Your task to perform on an android device: Open my contact list Image 0: 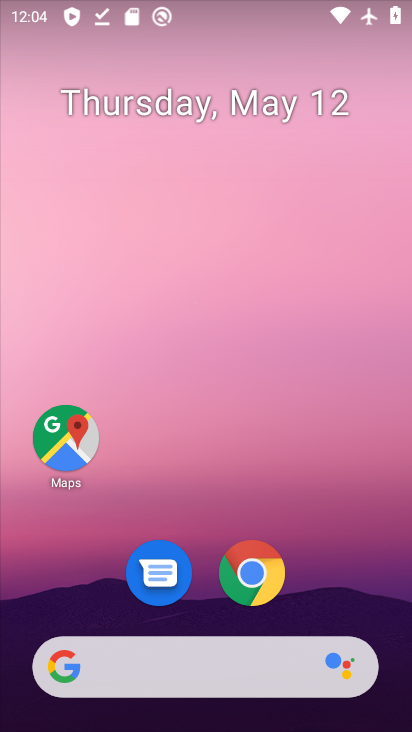
Step 0: drag from (313, 602) to (342, 256)
Your task to perform on an android device: Open my contact list Image 1: 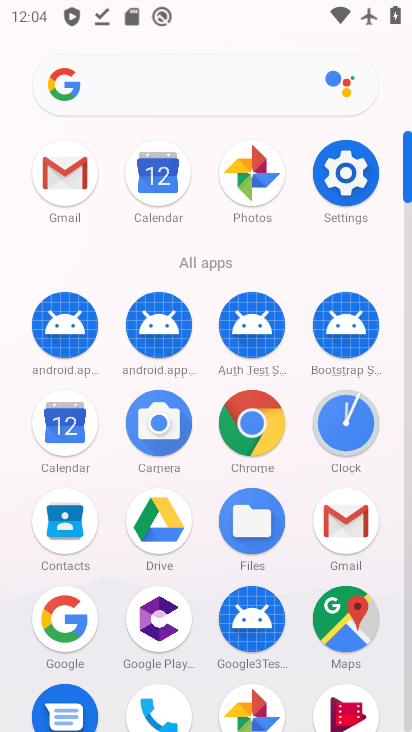
Step 1: drag from (212, 661) to (231, 353)
Your task to perform on an android device: Open my contact list Image 2: 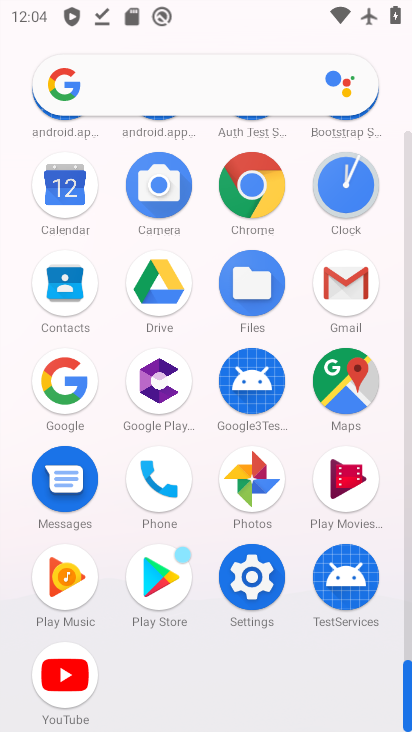
Step 2: click (168, 480)
Your task to perform on an android device: Open my contact list Image 3: 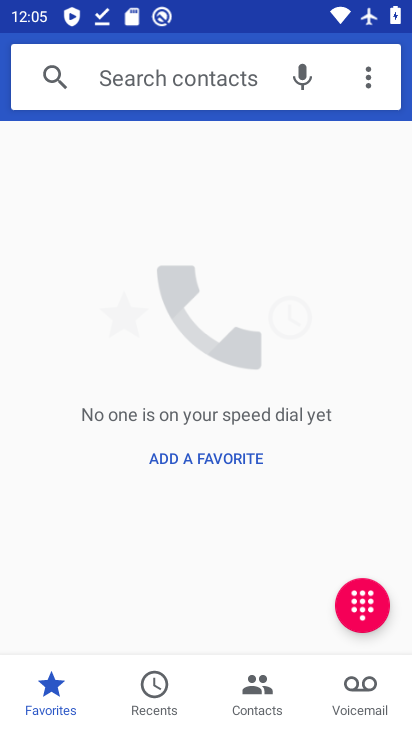
Step 3: click (262, 709)
Your task to perform on an android device: Open my contact list Image 4: 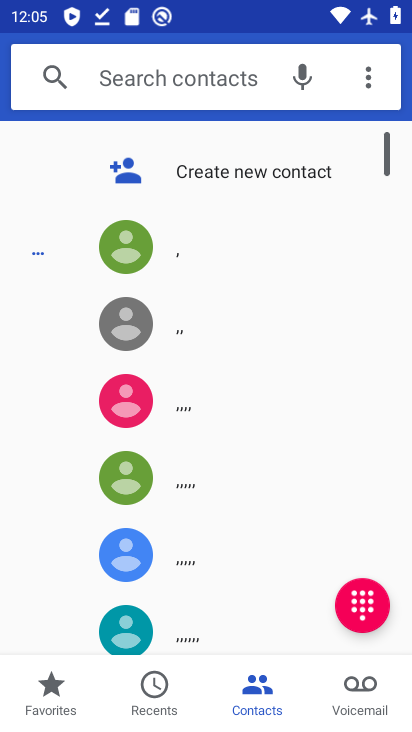
Step 4: task complete